Your task to perform on an android device: change text size in settings app Image 0: 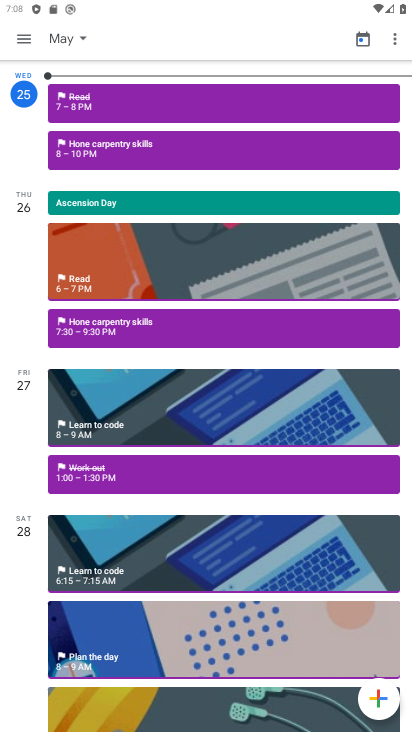
Step 0: press home button
Your task to perform on an android device: change text size in settings app Image 1: 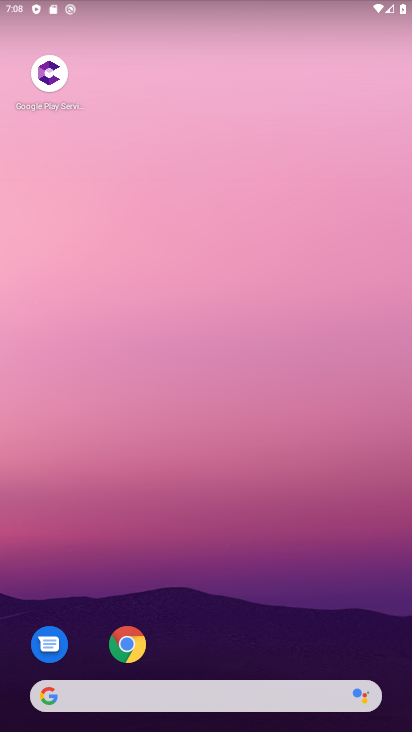
Step 1: drag from (256, 714) to (193, 117)
Your task to perform on an android device: change text size in settings app Image 2: 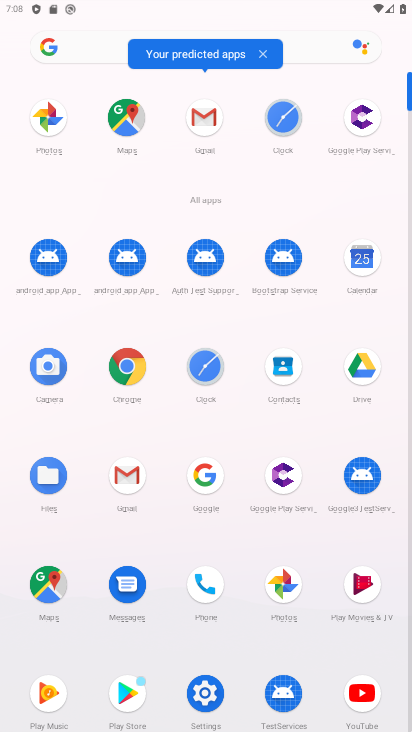
Step 2: click (211, 689)
Your task to perform on an android device: change text size in settings app Image 3: 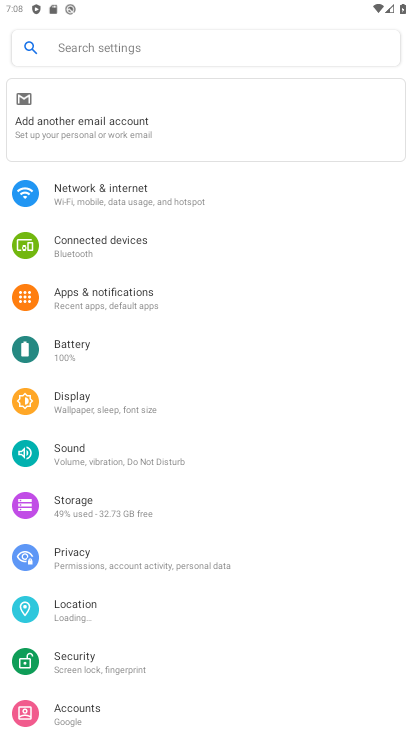
Step 3: click (101, 48)
Your task to perform on an android device: change text size in settings app Image 4: 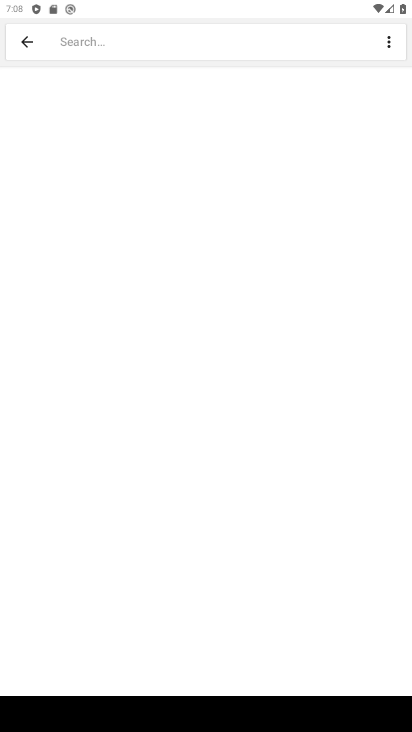
Step 4: drag from (383, 713) to (377, 612)
Your task to perform on an android device: change text size in settings app Image 5: 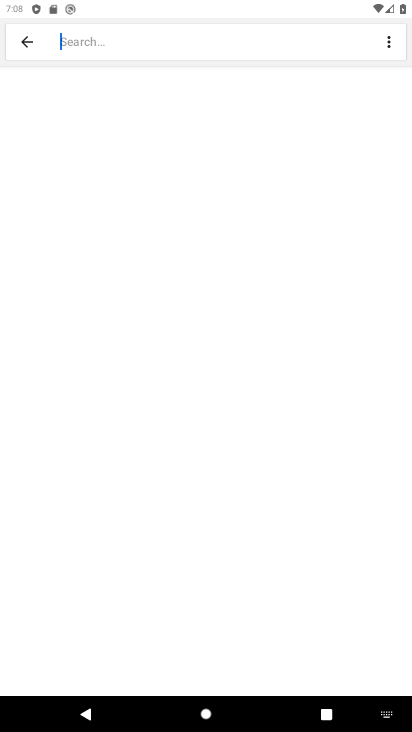
Step 5: click (396, 723)
Your task to perform on an android device: change text size in settings app Image 6: 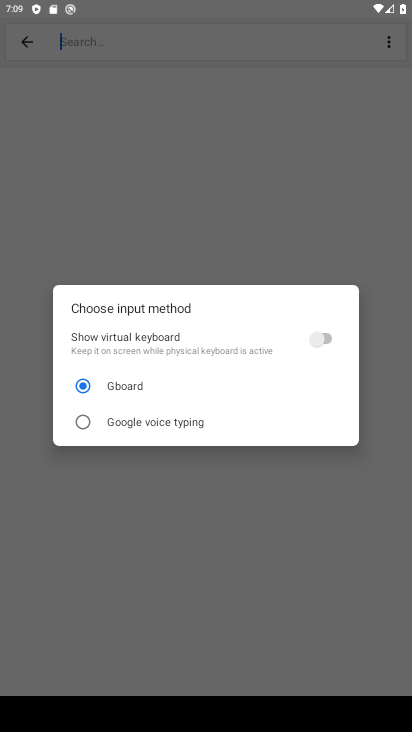
Step 6: click (327, 343)
Your task to perform on an android device: change text size in settings app Image 7: 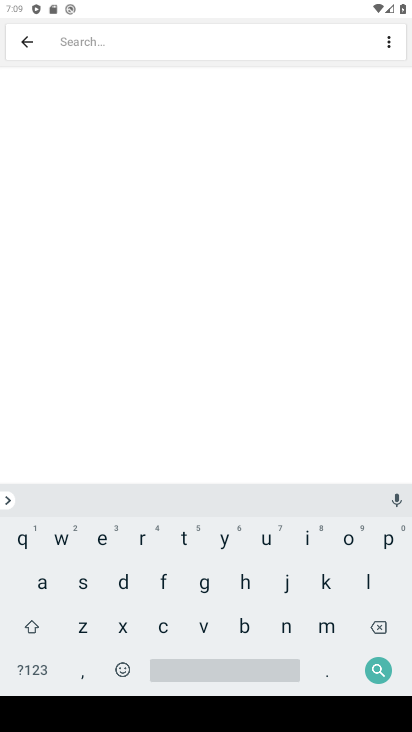
Step 7: click (116, 32)
Your task to perform on an android device: change text size in settings app Image 8: 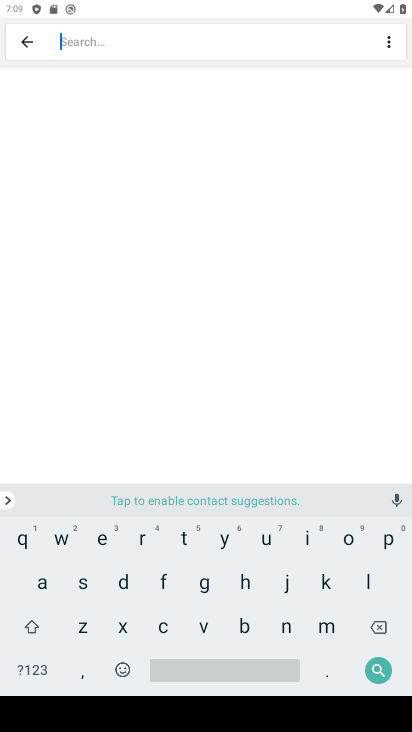
Step 8: click (82, 582)
Your task to perform on an android device: change text size in settings app Image 9: 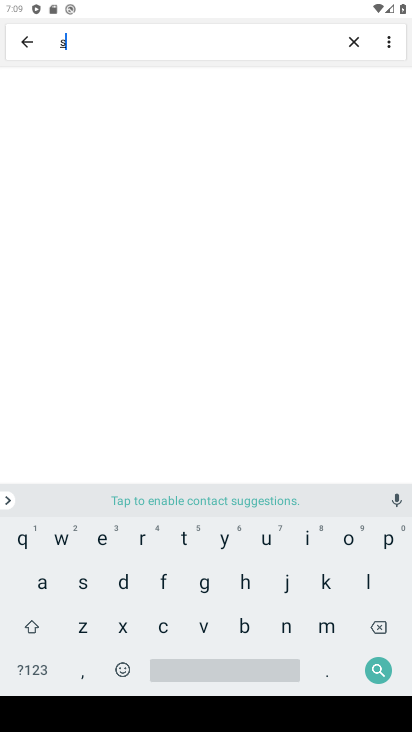
Step 9: click (305, 535)
Your task to perform on an android device: change text size in settings app Image 10: 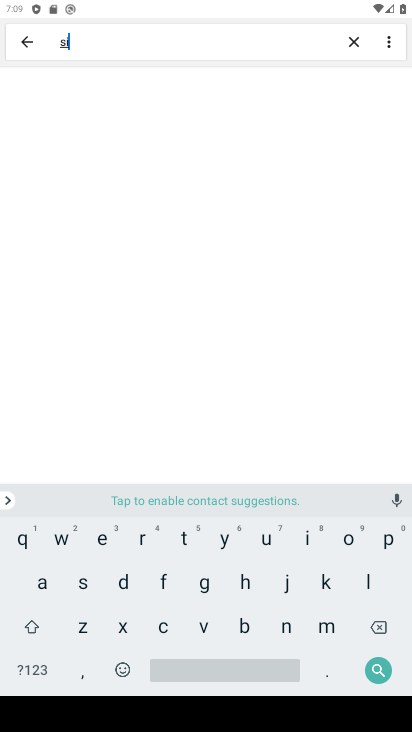
Step 10: click (77, 623)
Your task to perform on an android device: change text size in settings app Image 11: 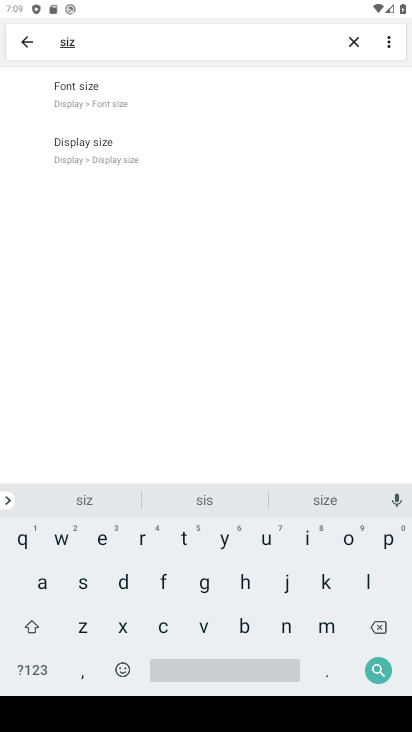
Step 11: click (114, 82)
Your task to perform on an android device: change text size in settings app Image 12: 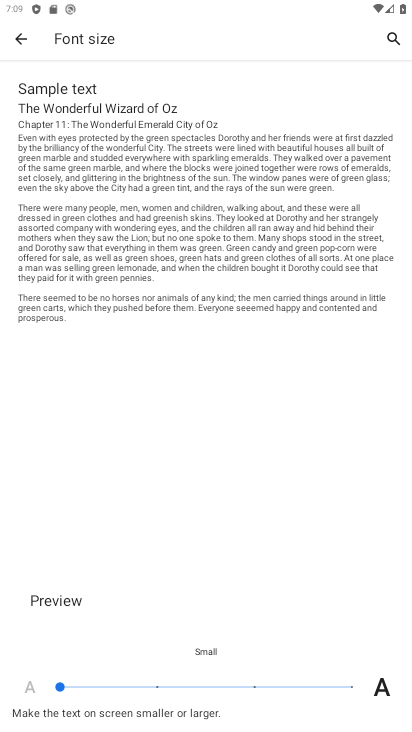
Step 12: drag from (218, 373) to (225, 277)
Your task to perform on an android device: change text size in settings app Image 13: 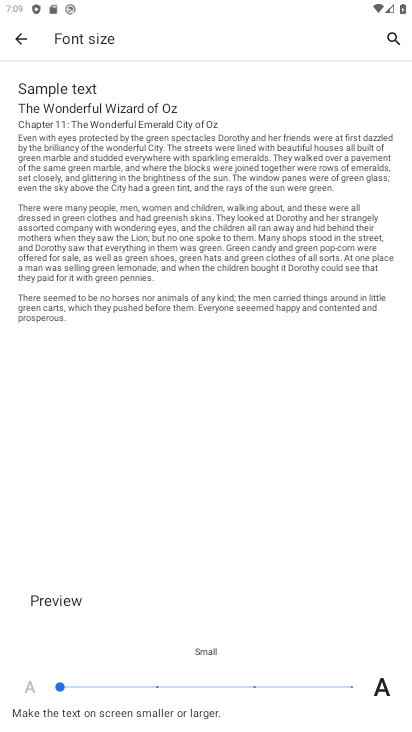
Step 13: click (254, 679)
Your task to perform on an android device: change text size in settings app Image 14: 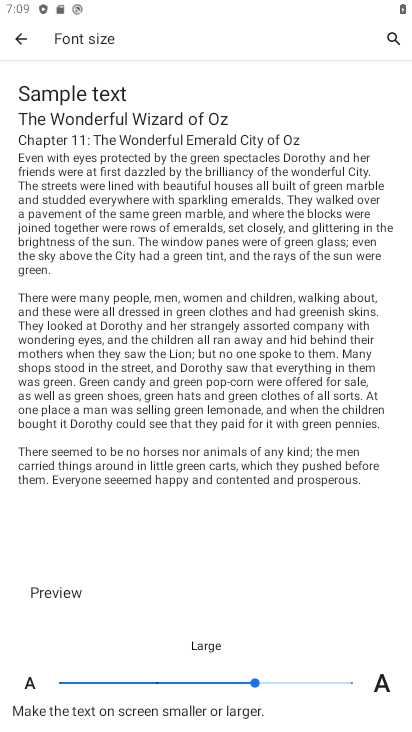
Step 14: click (350, 687)
Your task to perform on an android device: change text size in settings app Image 15: 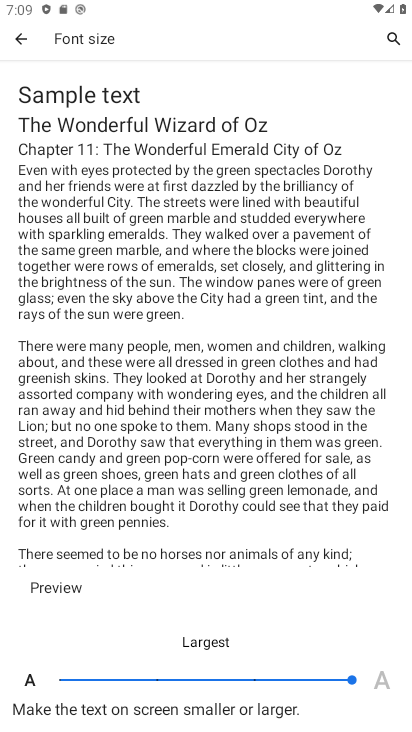
Step 15: task complete